Your task to perform on an android device: Turn off the flashlight Image 0: 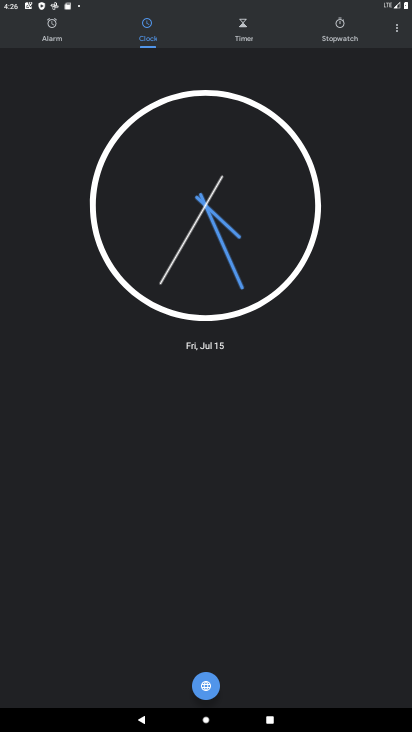
Step 0: press home button
Your task to perform on an android device: Turn off the flashlight Image 1: 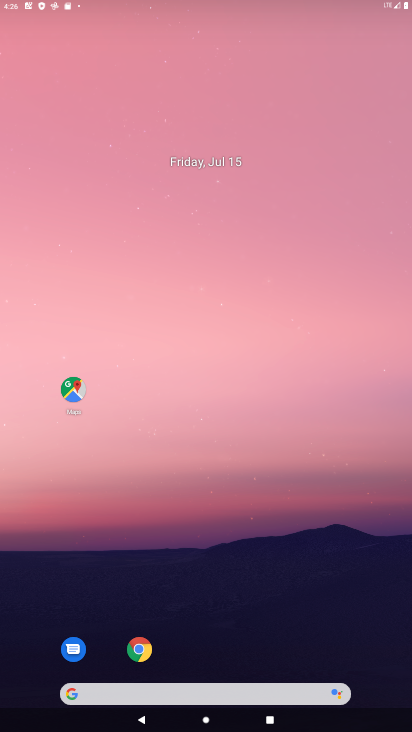
Step 1: drag from (292, 397) to (220, 62)
Your task to perform on an android device: Turn off the flashlight Image 2: 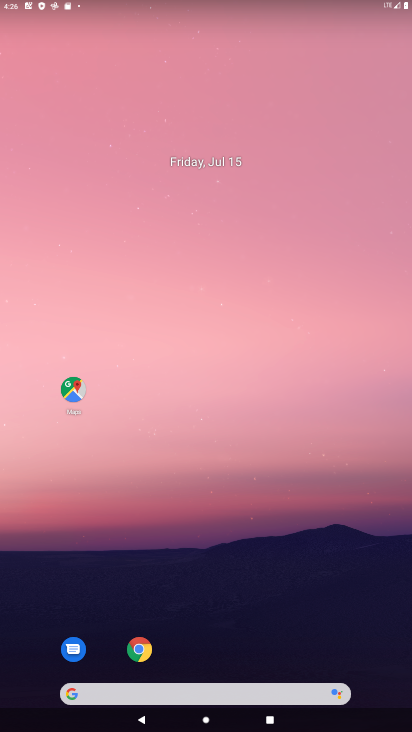
Step 2: drag from (261, 281) to (253, 1)
Your task to perform on an android device: Turn off the flashlight Image 3: 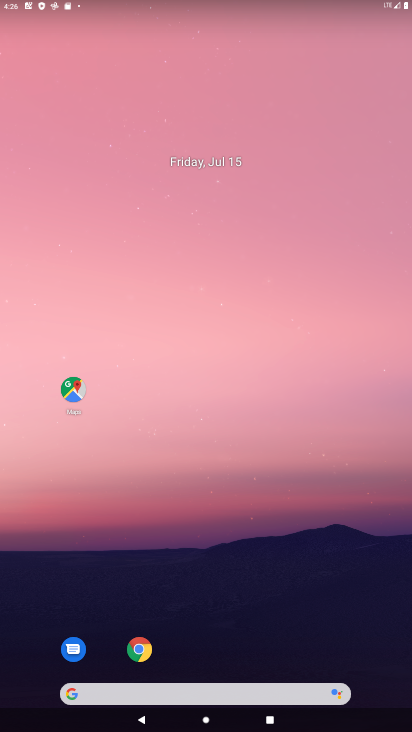
Step 3: drag from (220, 609) to (207, 65)
Your task to perform on an android device: Turn off the flashlight Image 4: 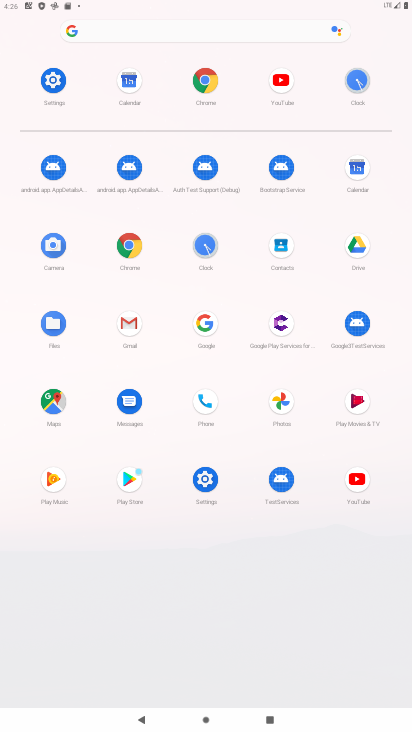
Step 4: click (59, 84)
Your task to perform on an android device: Turn off the flashlight Image 5: 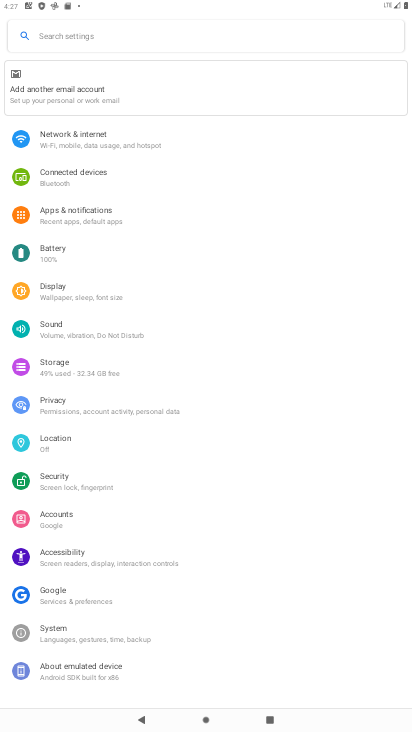
Step 5: click (75, 293)
Your task to perform on an android device: Turn off the flashlight Image 6: 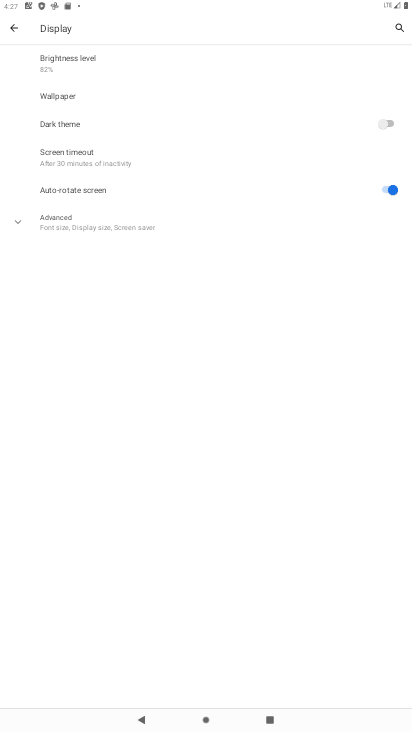
Step 6: task complete